Your task to perform on an android device: change notification settings in the gmail app Image 0: 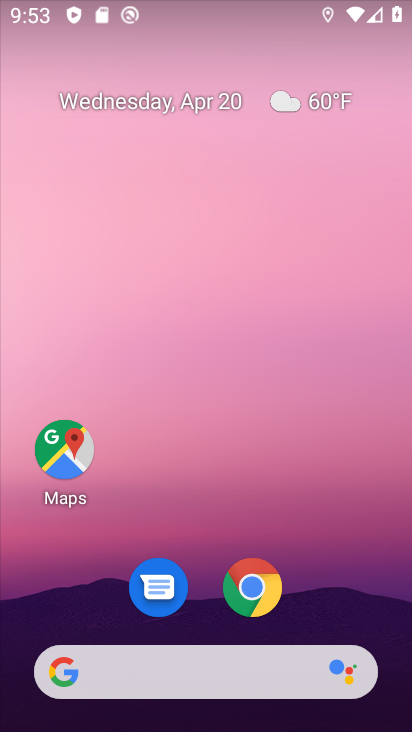
Step 0: drag from (310, 619) to (176, 68)
Your task to perform on an android device: change notification settings in the gmail app Image 1: 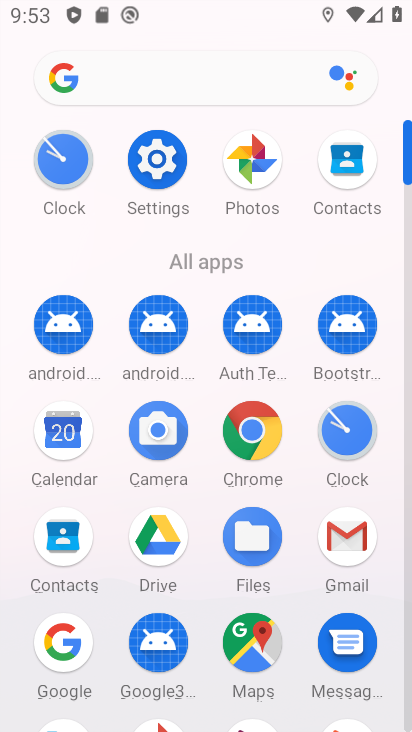
Step 1: click (347, 543)
Your task to perform on an android device: change notification settings in the gmail app Image 2: 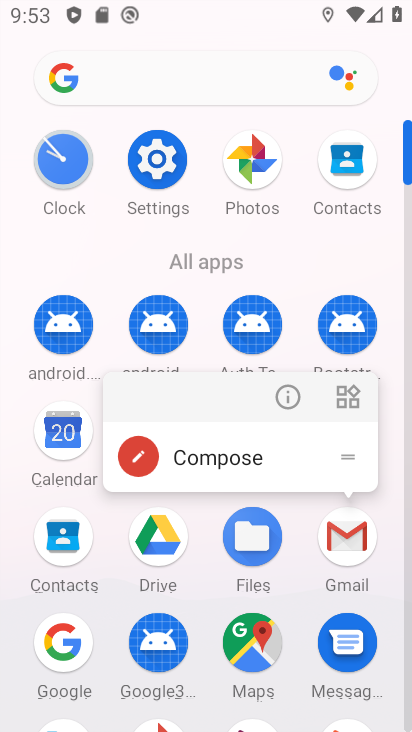
Step 2: click (347, 543)
Your task to perform on an android device: change notification settings in the gmail app Image 3: 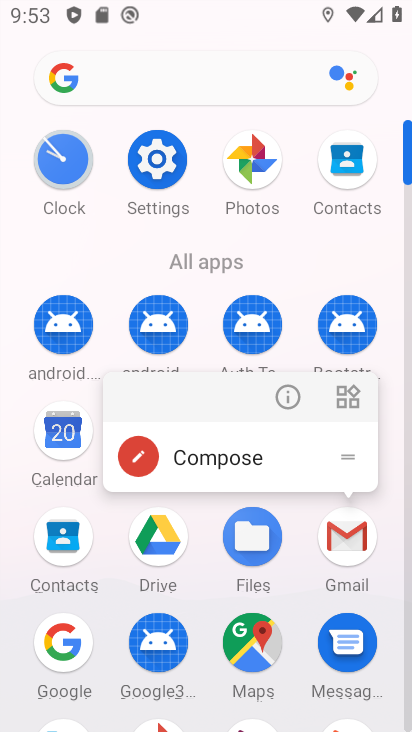
Step 3: click (347, 543)
Your task to perform on an android device: change notification settings in the gmail app Image 4: 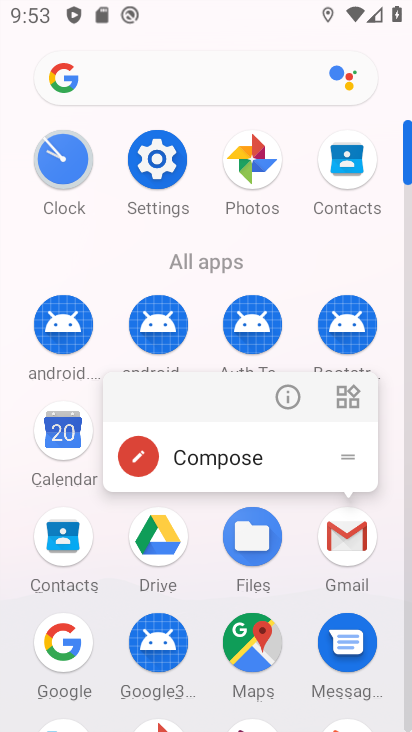
Step 4: click (359, 541)
Your task to perform on an android device: change notification settings in the gmail app Image 5: 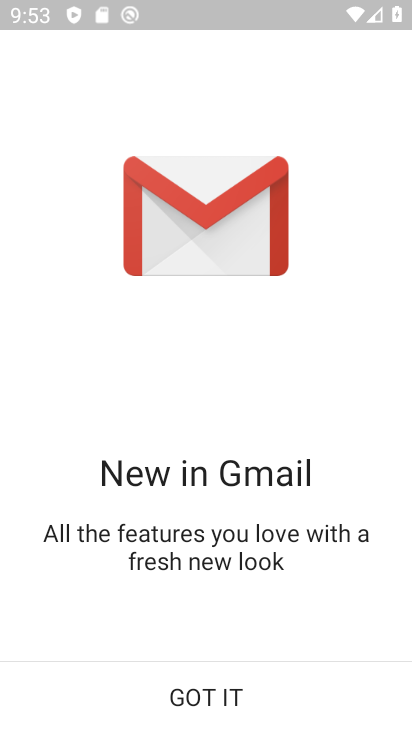
Step 5: click (190, 699)
Your task to perform on an android device: change notification settings in the gmail app Image 6: 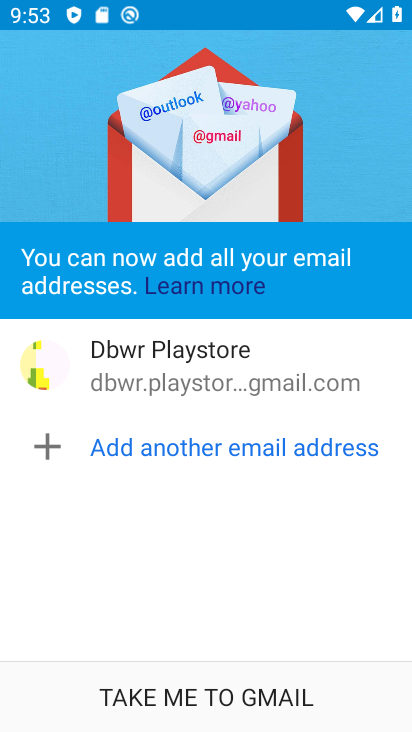
Step 6: click (190, 696)
Your task to perform on an android device: change notification settings in the gmail app Image 7: 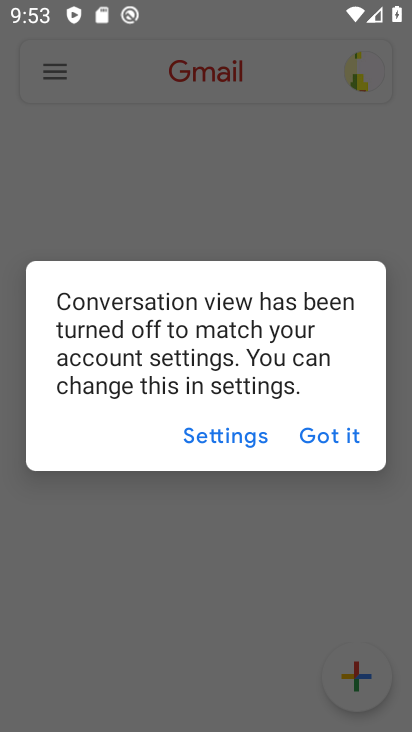
Step 7: click (219, 201)
Your task to perform on an android device: change notification settings in the gmail app Image 8: 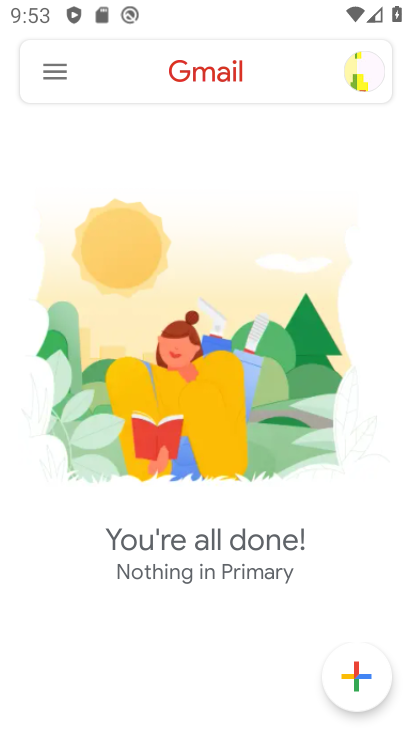
Step 8: click (326, 433)
Your task to perform on an android device: change notification settings in the gmail app Image 9: 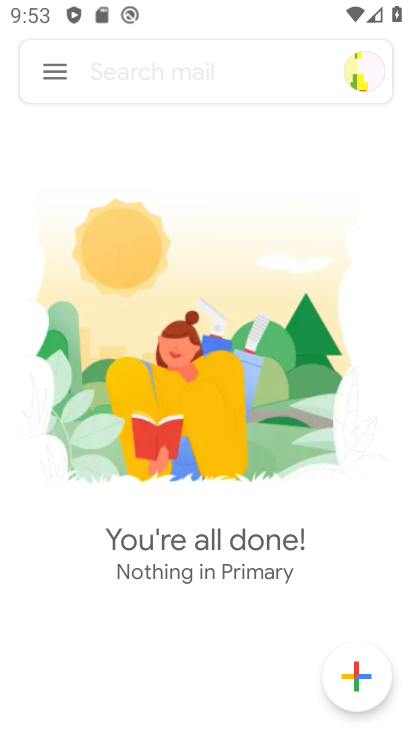
Step 9: click (48, 75)
Your task to perform on an android device: change notification settings in the gmail app Image 10: 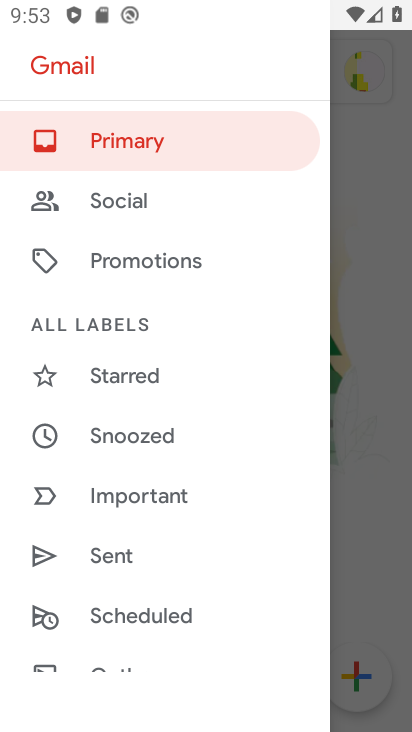
Step 10: drag from (102, 580) to (79, 75)
Your task to perform on an android device: change notification settings in the gmail app Image 11: 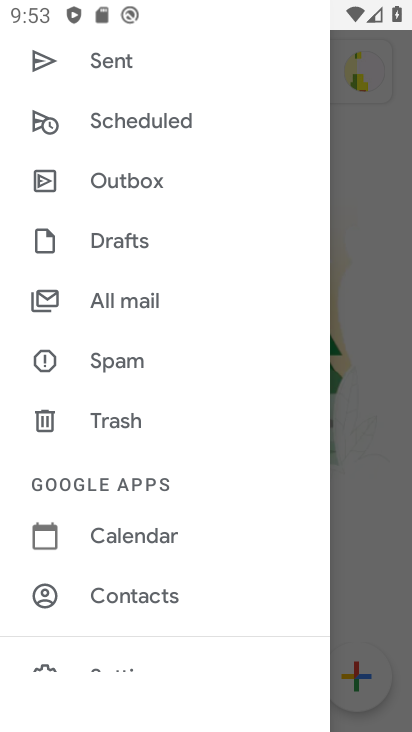
Step 11: drag from (246, 573) to (248, 371)
Your task to perform on an android device: change notification settings in the gmail app Image 12: 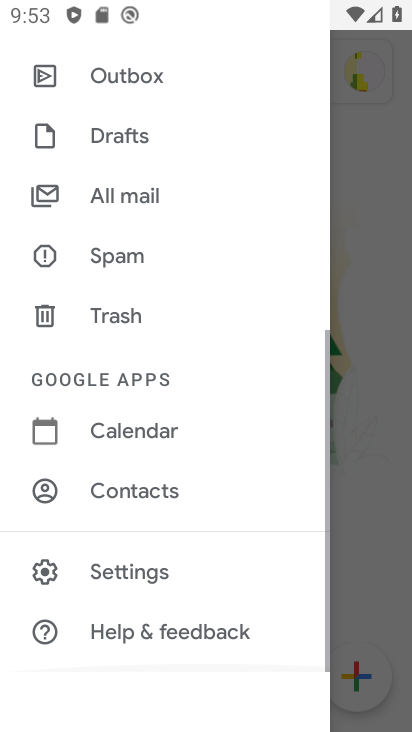
Step 12: click (138, 573)
Your task to perform on an android device: change notification settings in the gmail app Image 13: 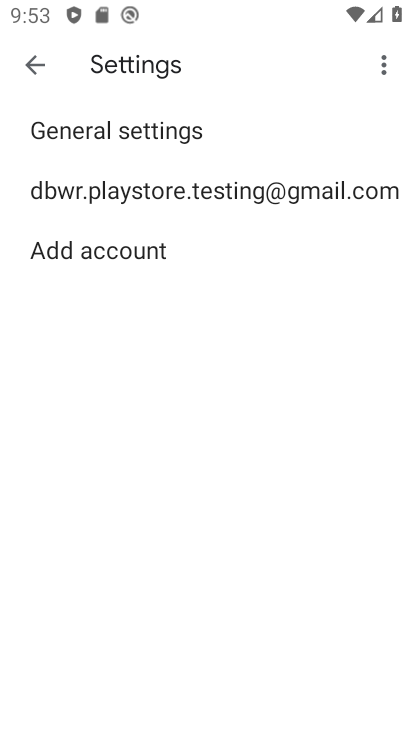
Step 13: click (154, 179)
Your task to perform on an android device: change notification settings in the gmail app Image 14: 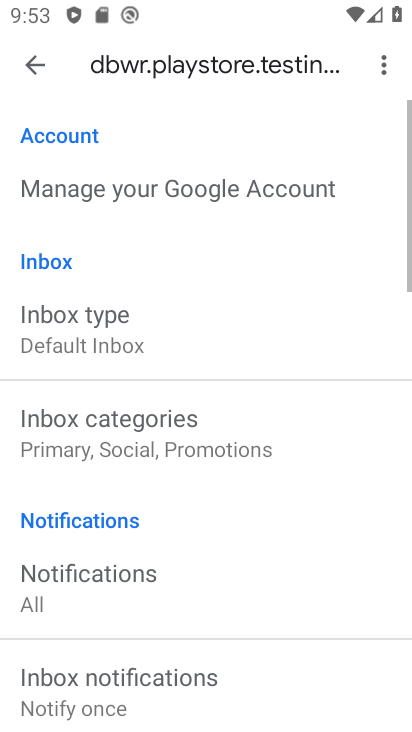
Step 14: drag from (64, 646) to (124, 114)
Your task to perform on an android device: change notification settings in the gmail app Image 15: 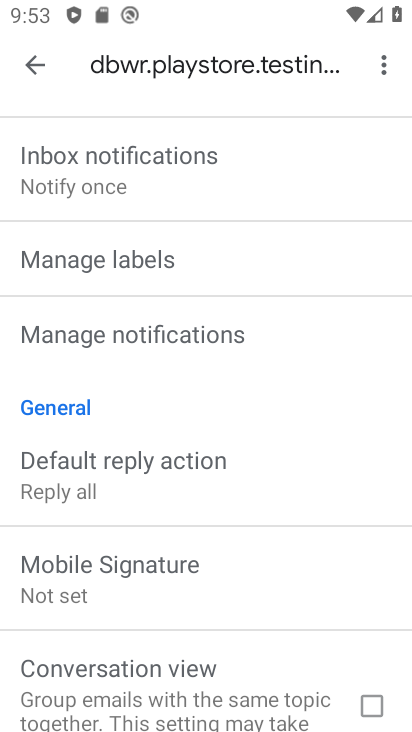
Step 15: click (131, 328)
Your task to perform on an android device: change notification settings in the gmail app Image 16: 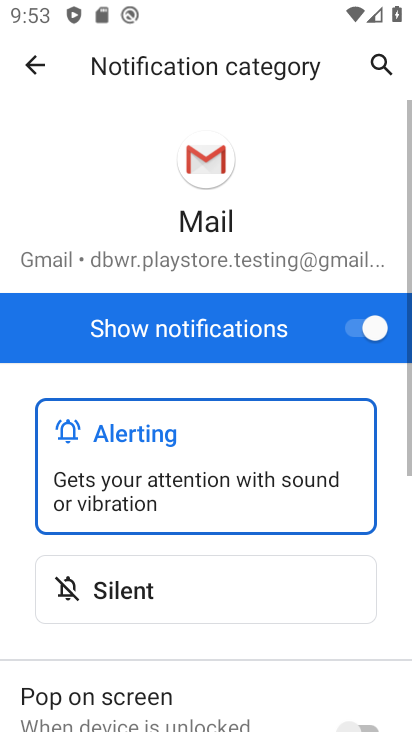
Step 16: click (348, 330)
Your task to perform on an android device: change notification settings in the gmail app Image 17: 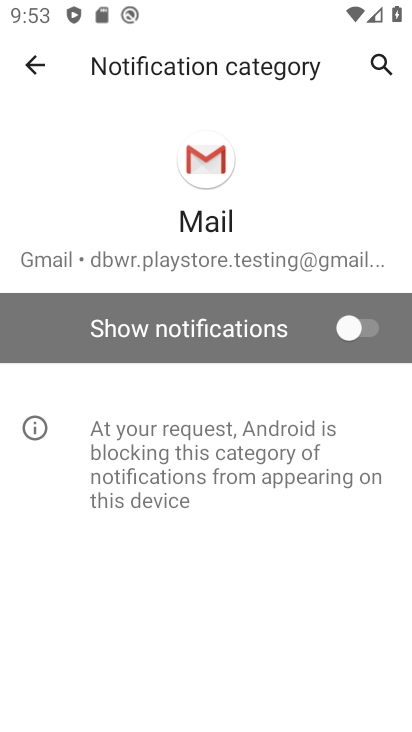
Step 17: task complete